Your task to perform on an android device: When is my next appointment? Image 0: 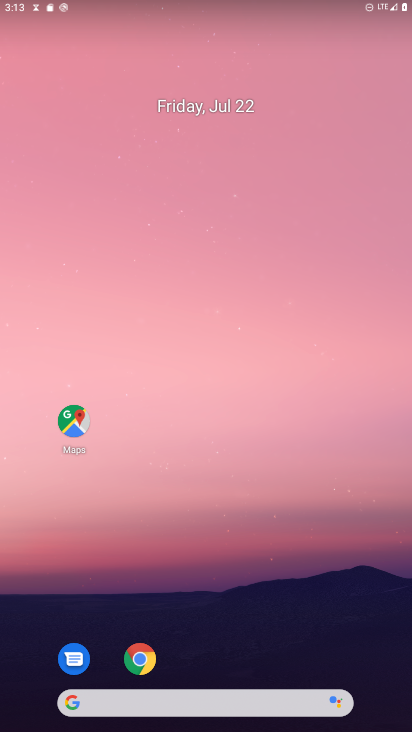
Step 0: drag from (341, 160) to (341, 14)
Your task to perform on an android device: When is my next appointment? Image 1: 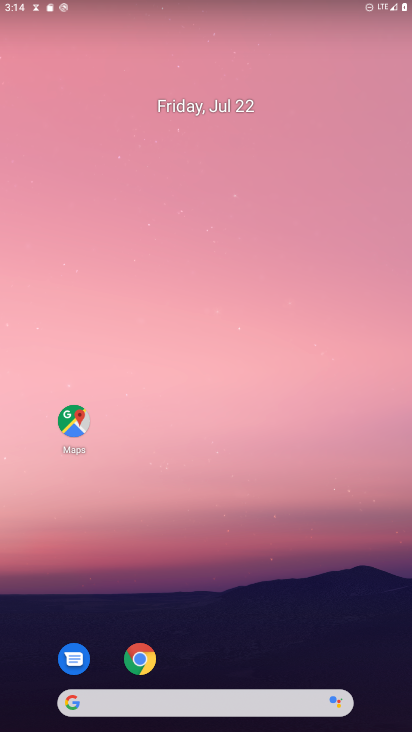
Step 1: drag from (252, 646) to (293, 48)
Your task to perform on an android device: When is my next appointment? Image 2: 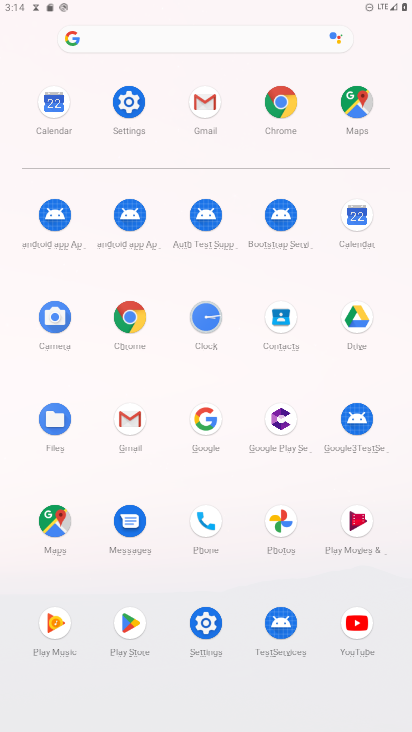
Step 2: click (357, 223)
Your task to perform on an android device: When is my next appointment? Image 3: 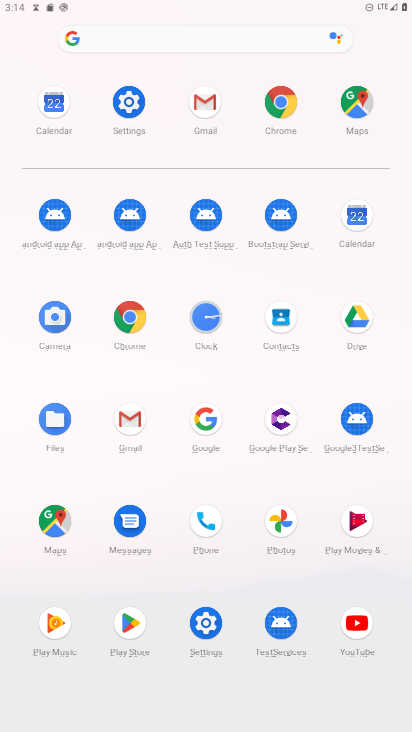
Step 3: click (347, 222)
Your task to perform on an android device: When is my next appointment? Image 4: 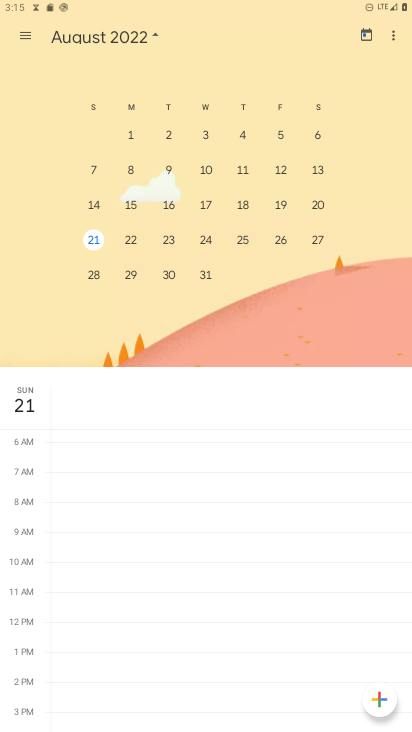
Step 4: click (96, 248)
Your task to perform on an android device: When is my next appointment? Image 5: 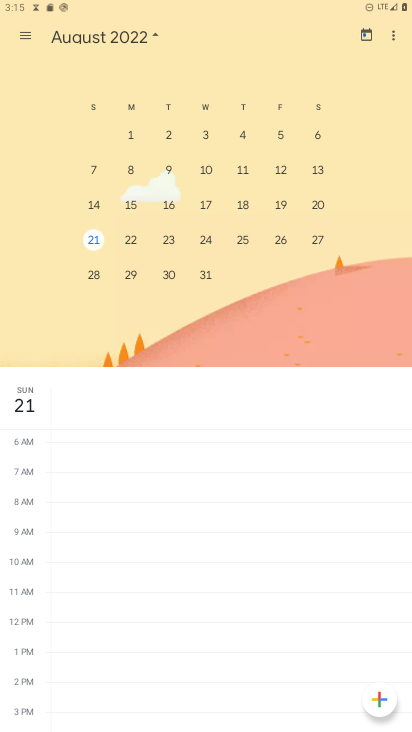
Step 5: click (104, 252)
Your task to perform on an android device: When is my next appointment? Image 6: 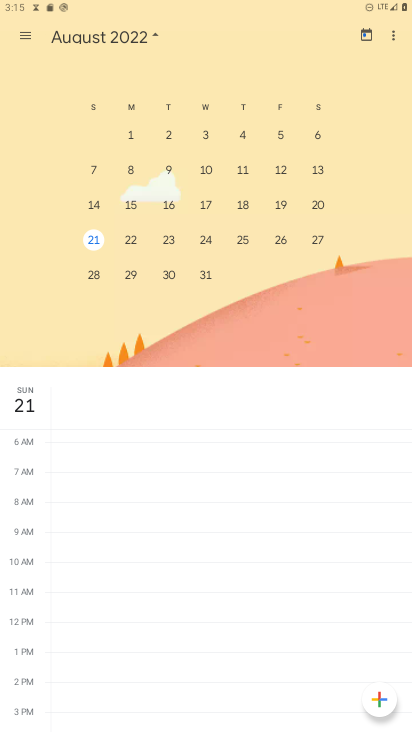
Step 6: click (98, 246)
Your task to perform on an android device: When is my next appointment? Image 7: 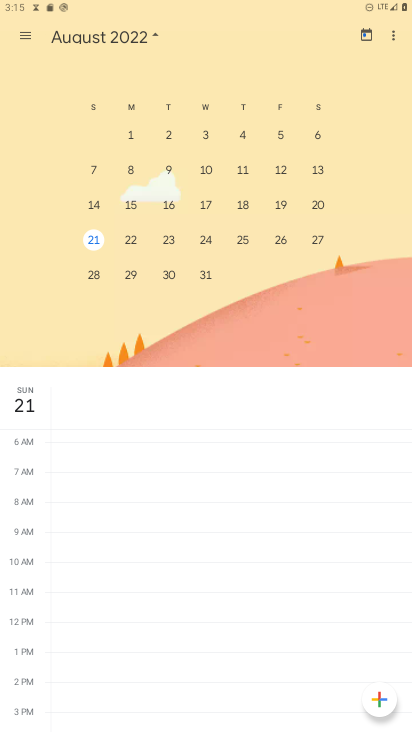
Step 7: task complete